Your task to perform on an android device: What is the news today? Image 0: 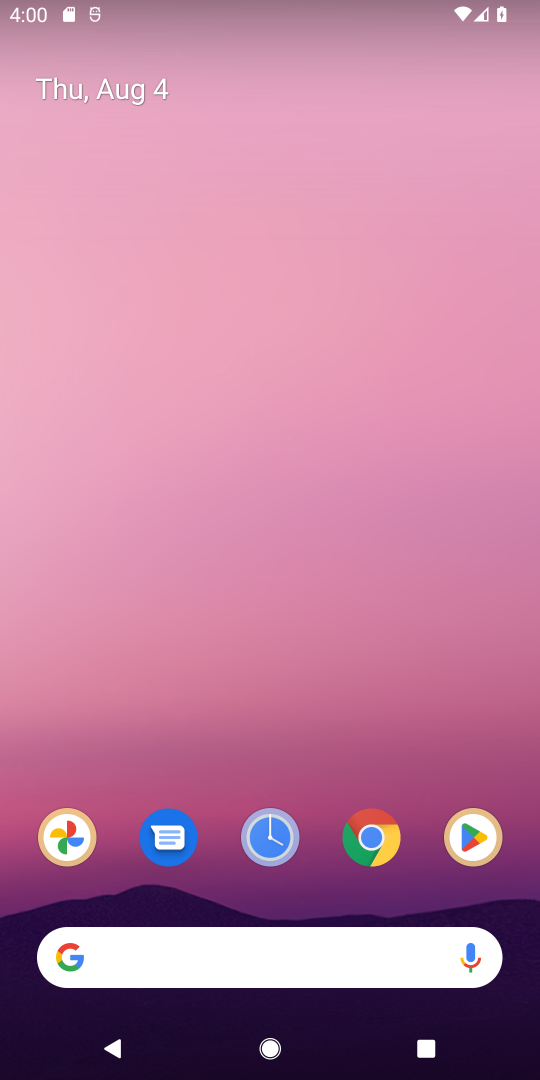
Step 0: drag from (5, 421) to (495, 249)
Your task to perform on an android device: What is the news today? Image 1: 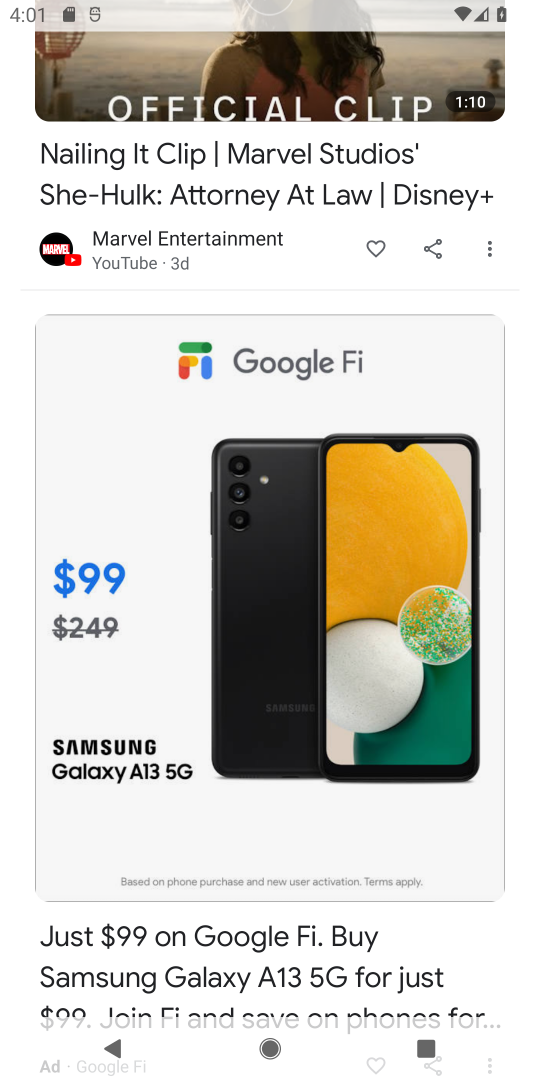
Step 1: task complete